Your task to perform on an android device: Check the weather Image 0: 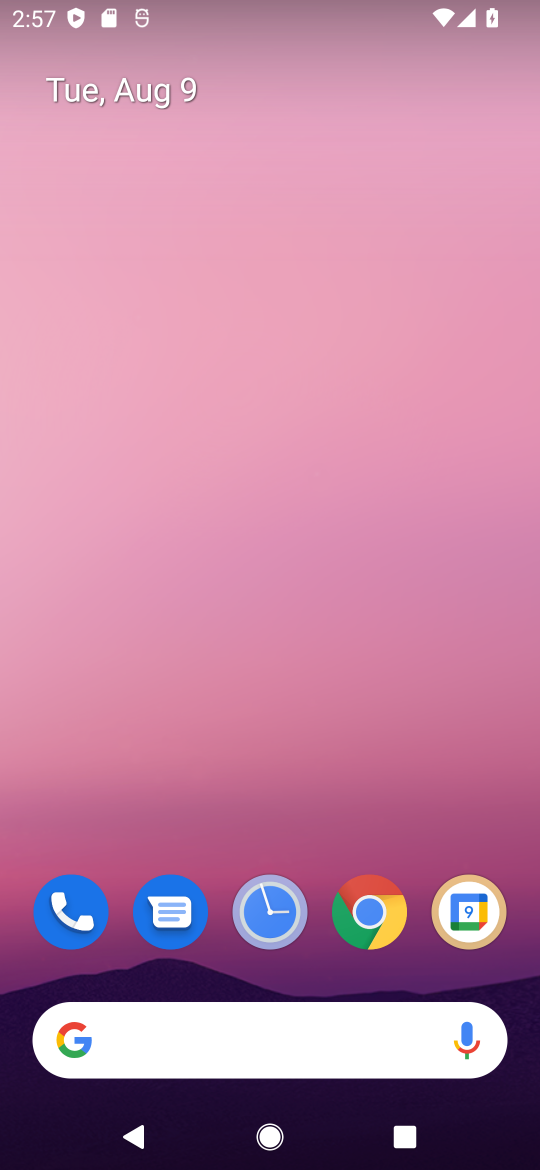
Step 0: drag from (297, 789) to (267, 1)
Your task to perform on an android device: Check the weather Image 1: 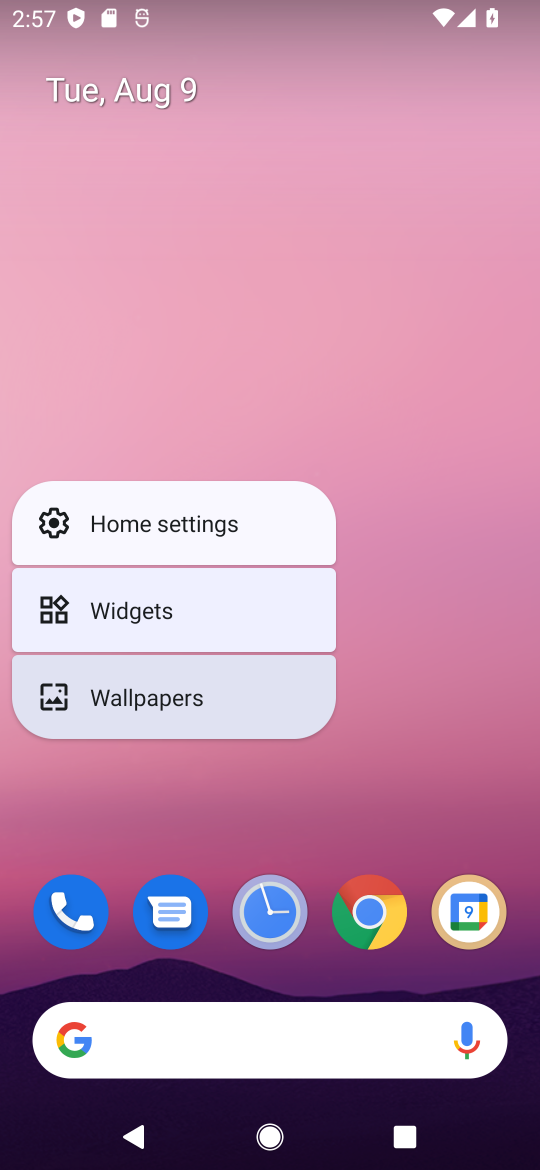
Step 1: click (327, 810)
Your task to perform on an android device: Check the weather Image 2: 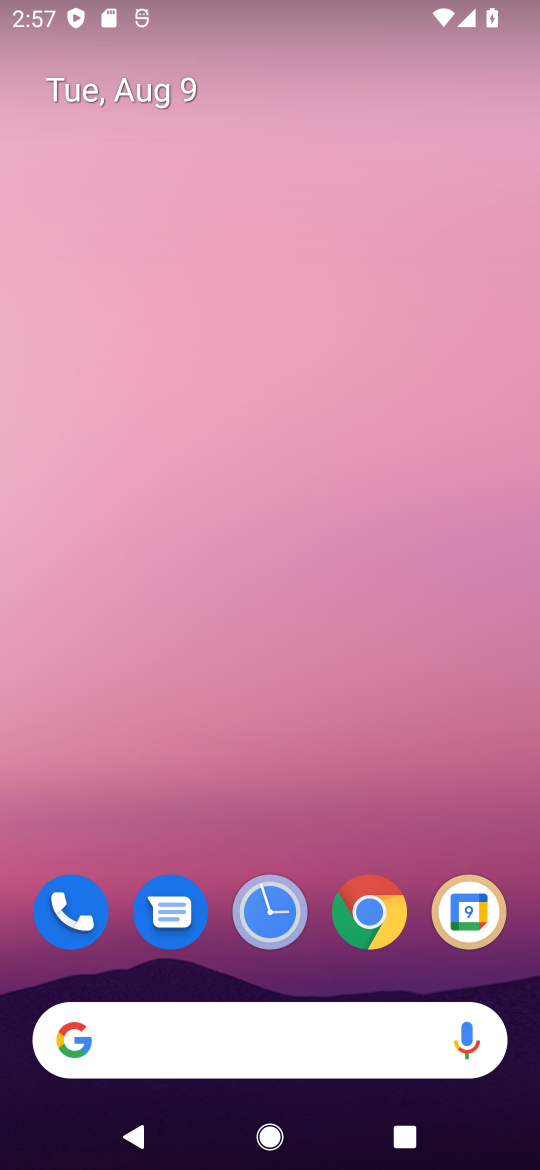
Step 2: drag from (274, 800) to (287, 34)
Your task to perform on an android device: Check the weather Image 3: 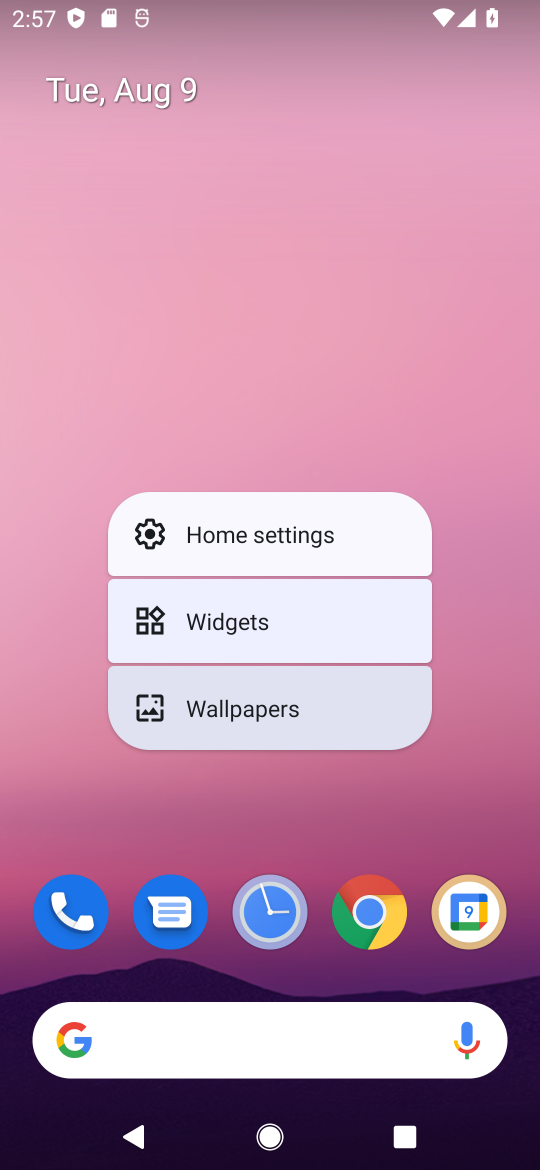
Step 3: click (328, 326)
Your task to perform on an android device: Check the weather Image 4: 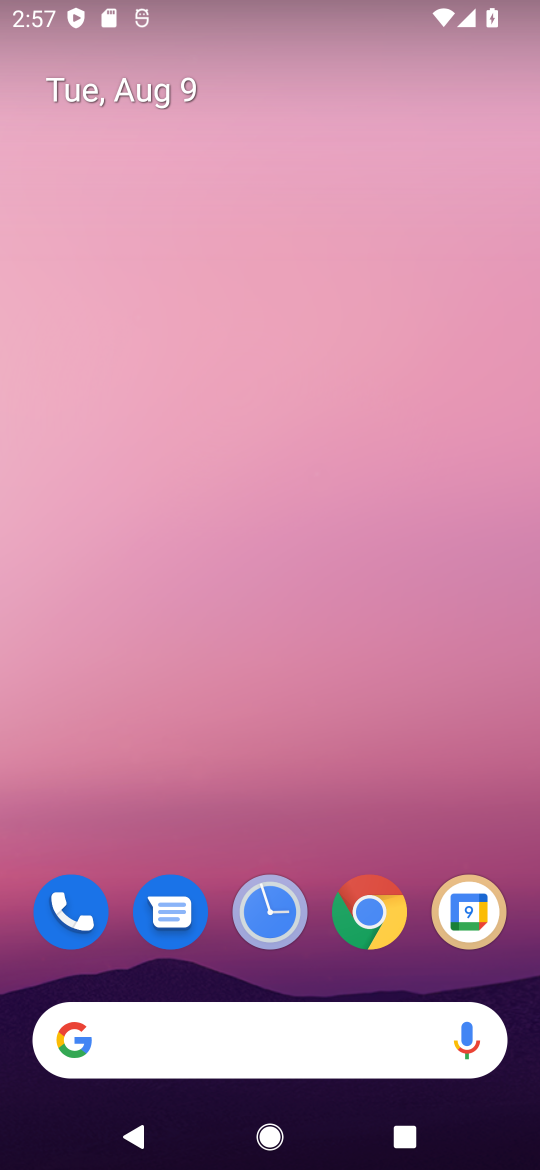
Step 4: drag from (291, 794) to (364, 22)
Your task to perform on an android device: Check the weather Image 5: 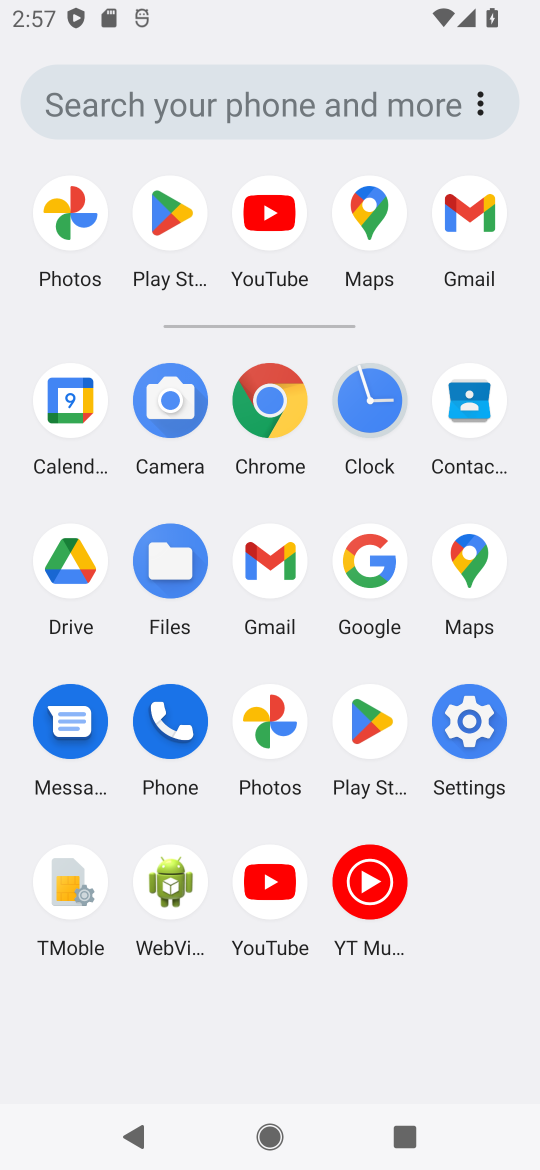
Step 5: click (357, 561)
Your task to perform on an android device: Check the weather Image 6: 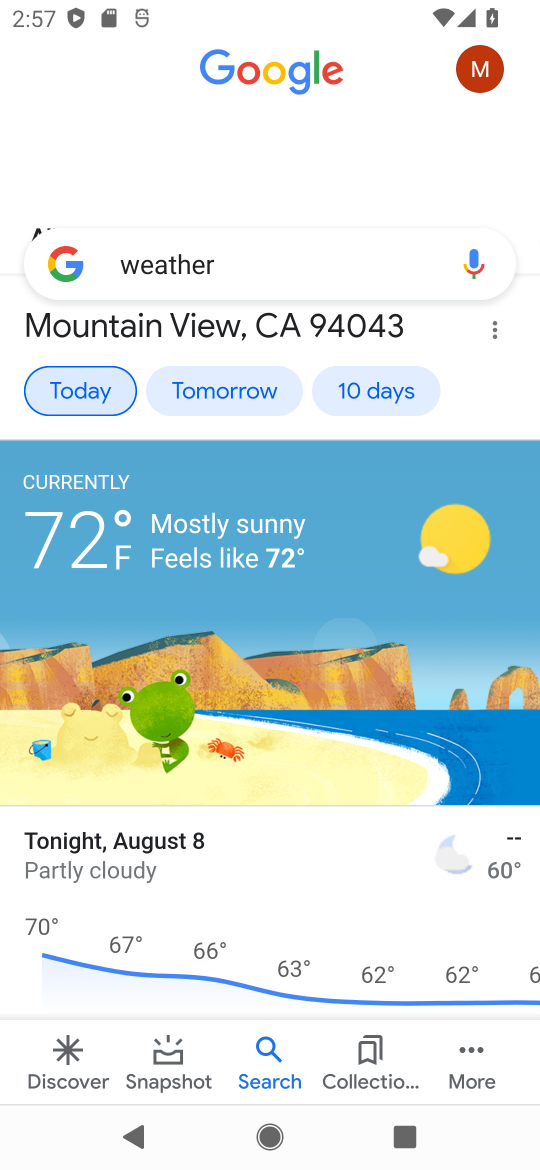
Step 6: task complete